Your task to perform on an android device: Open calendar and show me the second week of next month Image 0: 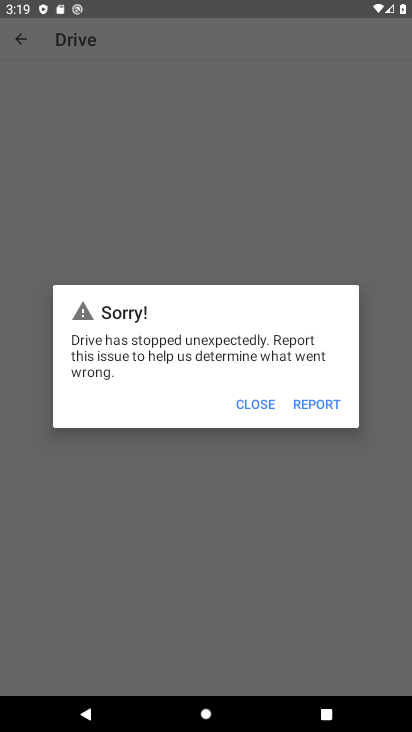
Step 0: press home button
Your task to perform on an android device: Open calendar and show me the second week of next month Image 1: 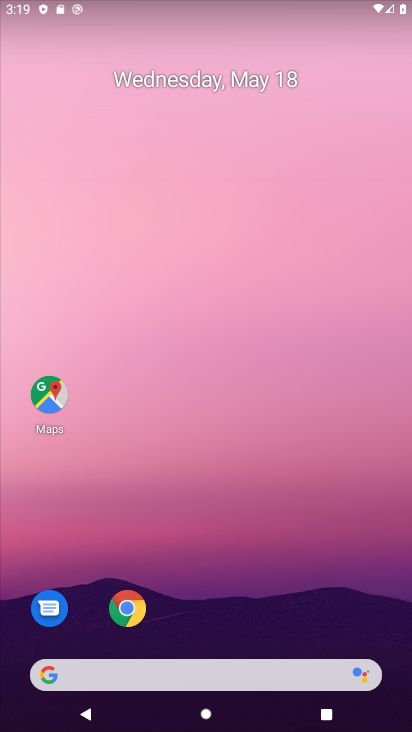
Step 1: click (247, 60)
Your task to perform on an android device: Open calendar and show me the second week of next month Image 2: 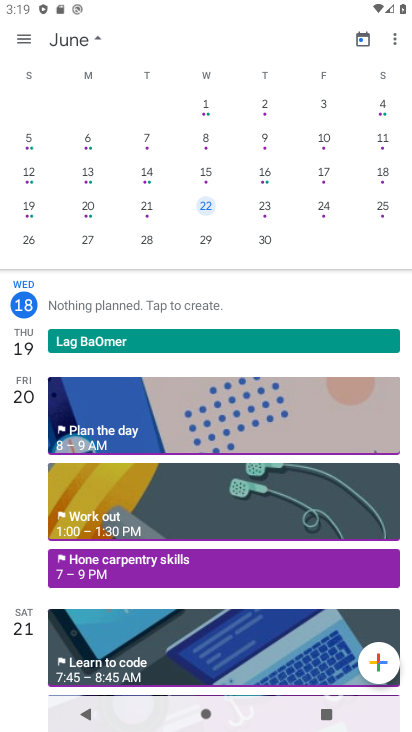
Step 2: click (205, 142)
Your task to perform on an android device: Open calendar and show me the second week of next month Image 3: 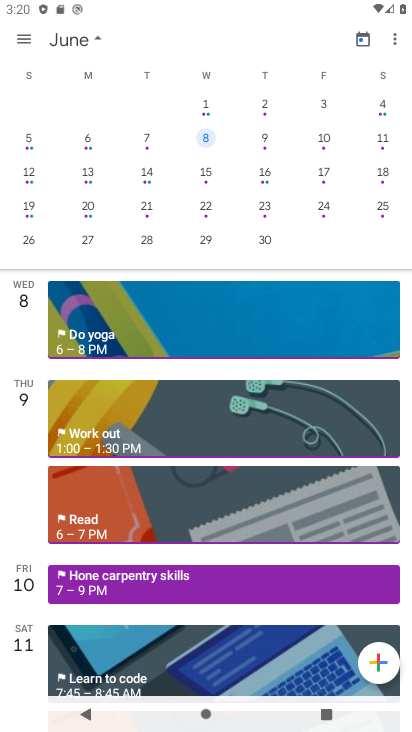
Step 3: task complete